Your task to perform on an android device: turn off smart reply in the gmail app Image 0: 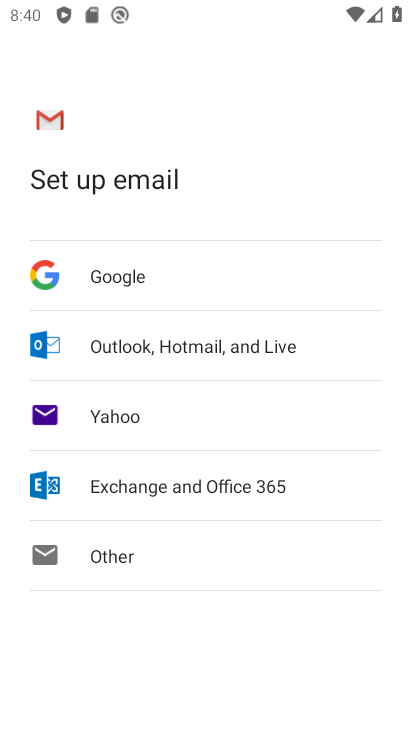
Step 0: press home button
Your task to perform on an android device: turn off smart reply in the gmail app Image 1: 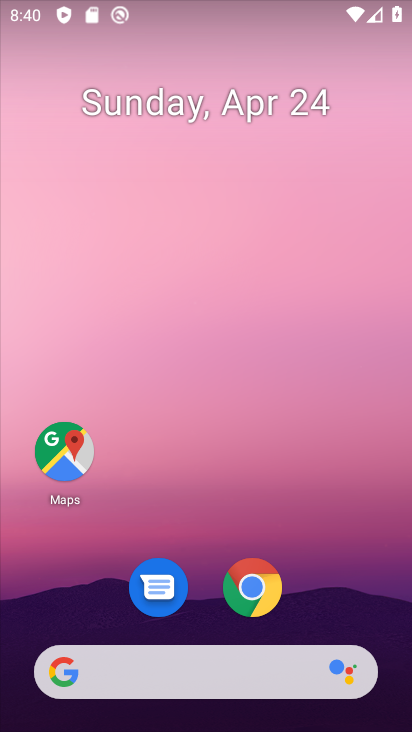
Step 1: drag from (350, 527) to (286, 17)
Your task to perform on an android device: turn off smart reply in the gmail app Image 2: 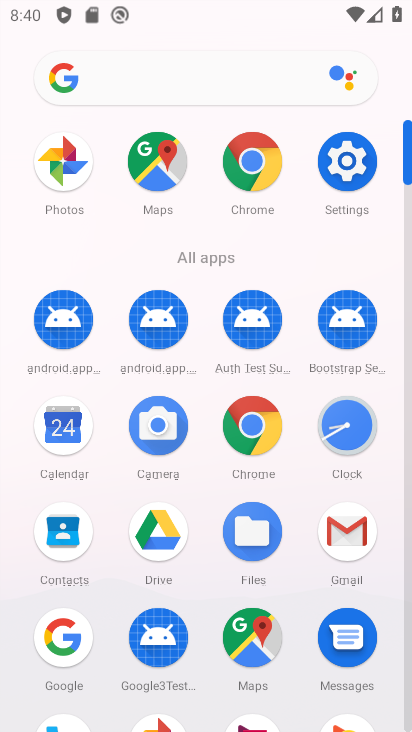
Step 2: click (330, 541)
Your task to perform on an android device: turn off smart reply in the gmail app Image 3: 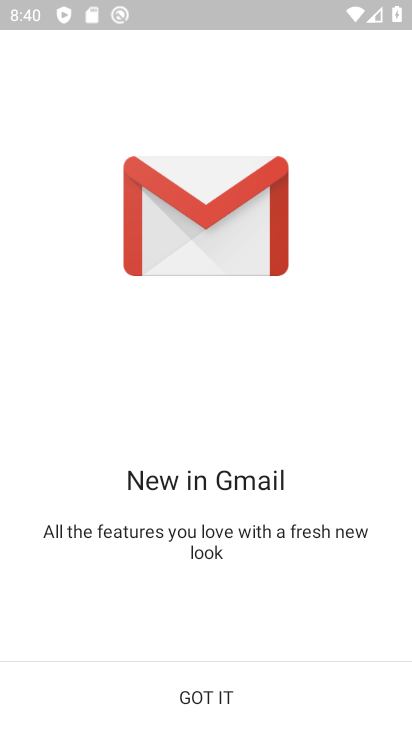
Step 3: click (217, 700)
Your task to perform on an android device: turn off smart reply in the gmail app Image 4: 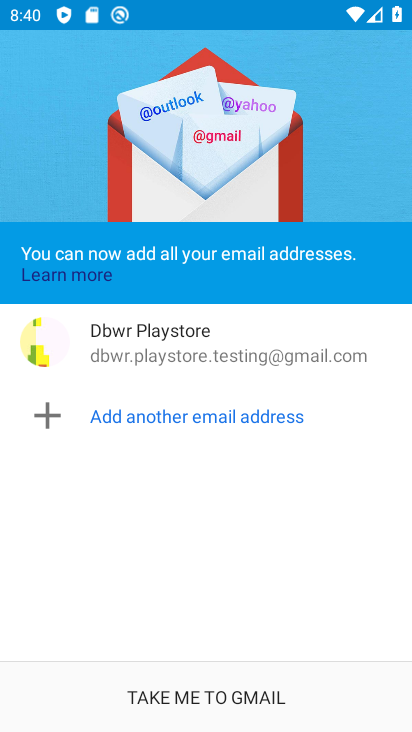
Step 4: click (217, 700)
Your task to perform on an android device: turn off smart reply in the gmail app Image 5: 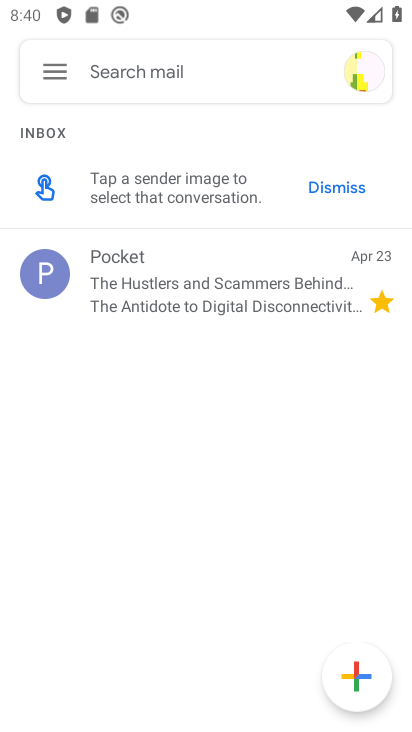
Step 5: click (43, 73)
Your task to perform on an android device: turn off smart reply in the gmail app Image 6: 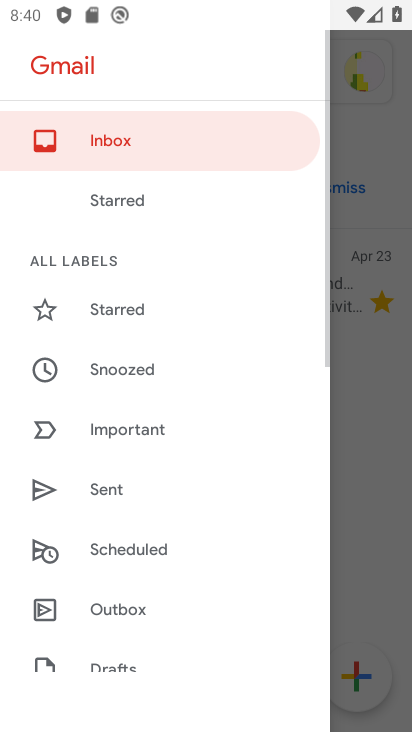
Step 6: drag from (88, 697) to (124, 209)
Your task to perform on an android device: turn off smart reply in the gmail app Image 7: 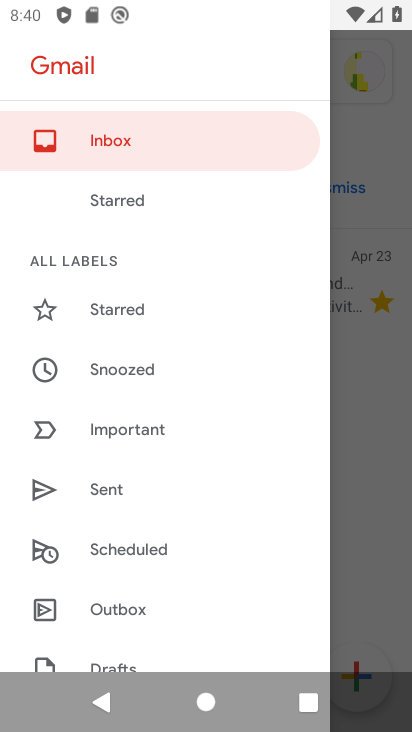
Step 7: drag from (160, 405) to (138, 164)
Your task to perform on an android device: turn off smart reply in the gmail app Image 8: 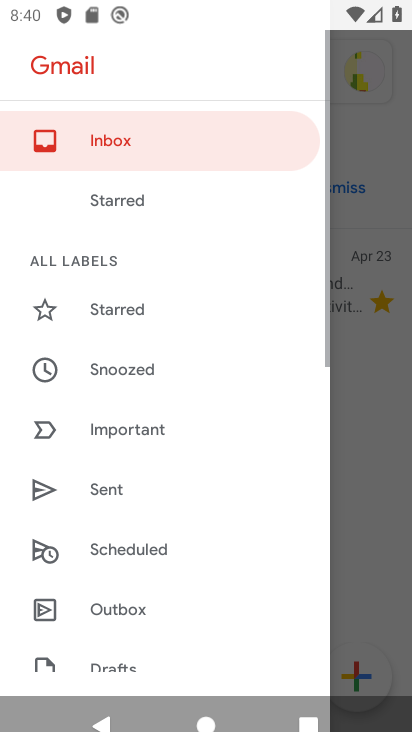
Step 8: drag from (183, 114) to (246, 0)
Your task to perform on an android device: turn off smart reply in the gmail app Image 9: 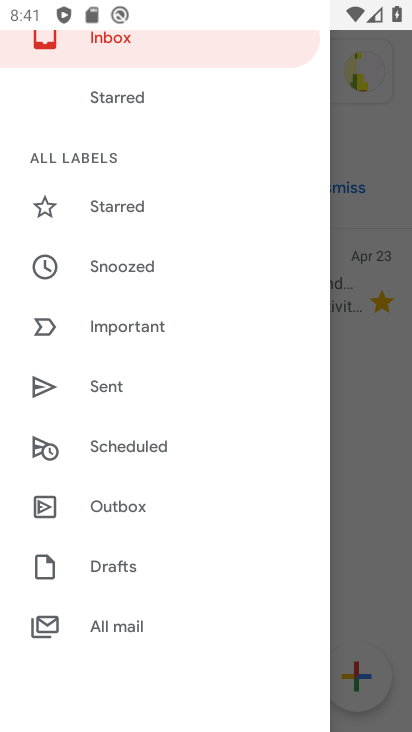
Step 9: drag from (163, 581) to (193, 207)
Your task to perform on an android device: turn off smart reply in the gmail app Image 10: 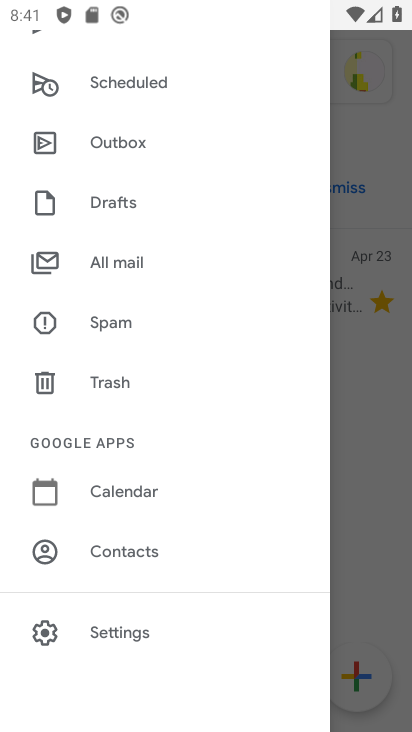
Step 10: drag from (92, 728) to (149, 638)
Your task to perform on an android device: turn off smart reply in the gmail app Image 11: 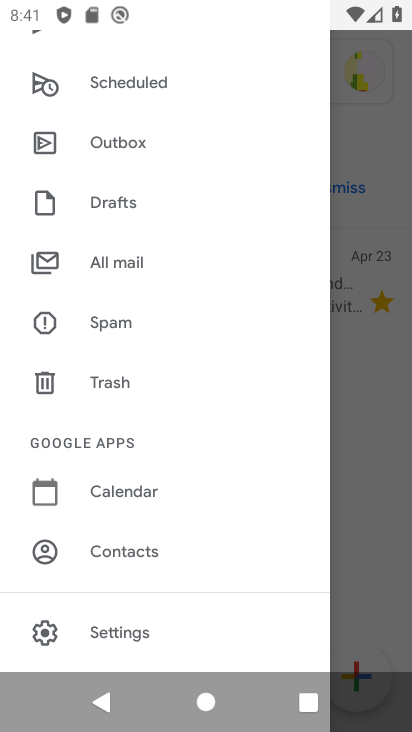
Step 11: drag from (206, 566) to (232, 267)
Your task to perform on an android device: turn off smart reply in the gmail app Image 12: 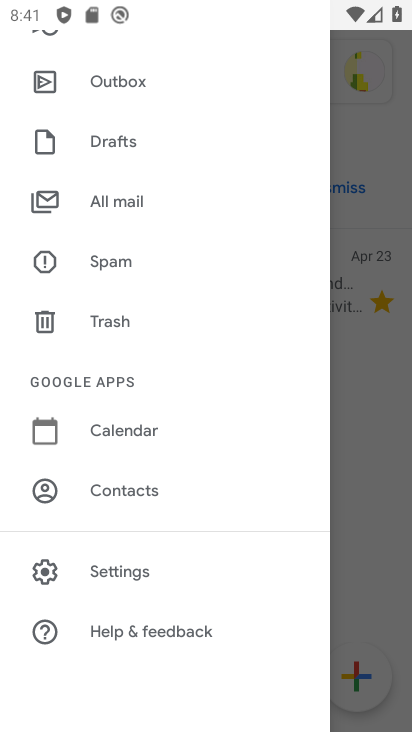
Step 12: click (138, 569)
Your task to perform on an android device: turn off smart reply in the gmail app Image 13: 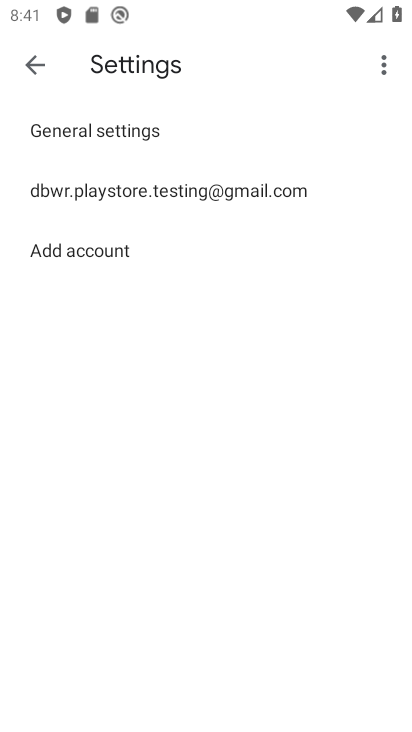
Step 13: click (188, 197)
Your task to perform on an android device: turn off smart reply in the gmail app Image 14: 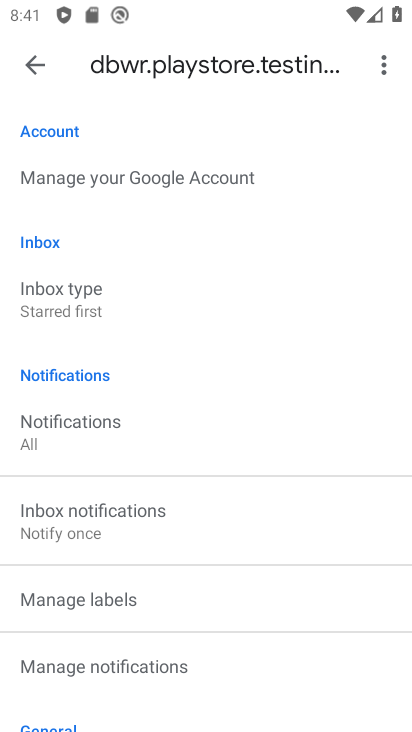
Step 14: drag from (256, 562) to (239, 297)
Your task to perform on an android device: turn off smart reply in the gmail app Image 15: 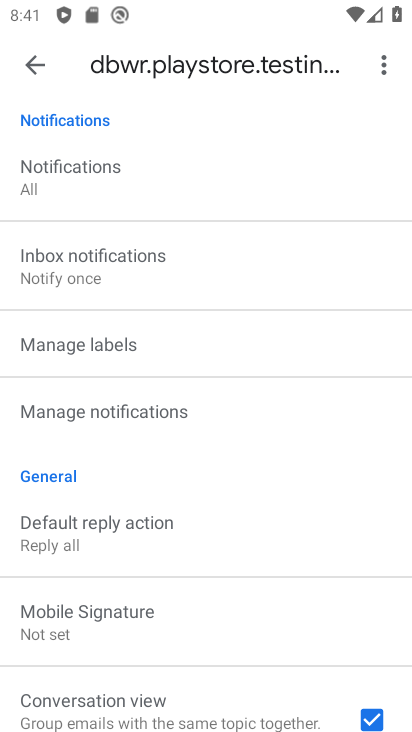
Step 15: drag from (233, 558) to (233, 409)
Your task to perform on an android device: turn off smart reply in the gmail app Image 16: 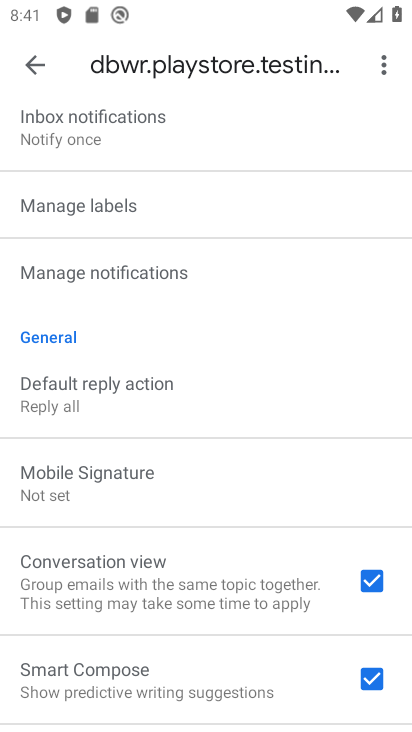
Step 16: drag from (225, 319) to (223, 523)
Your task to perform on an android device: turn off smart reply in the gmail app Image 17: 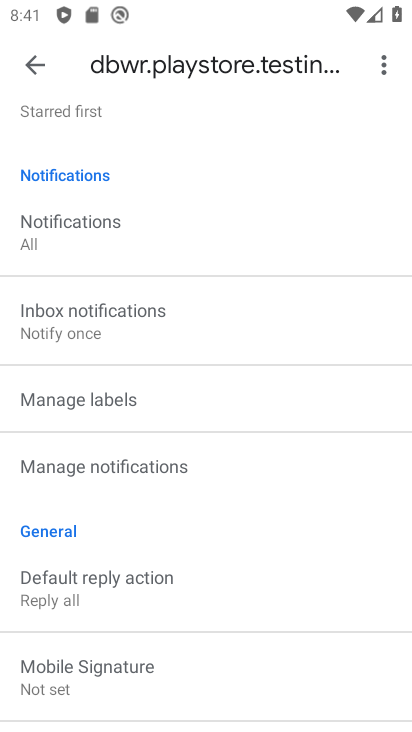
Step 17: drag from (349, 648) to (246, 14)
Your task to perform on an android device: turn off smart reply in the gmail app Image 18: 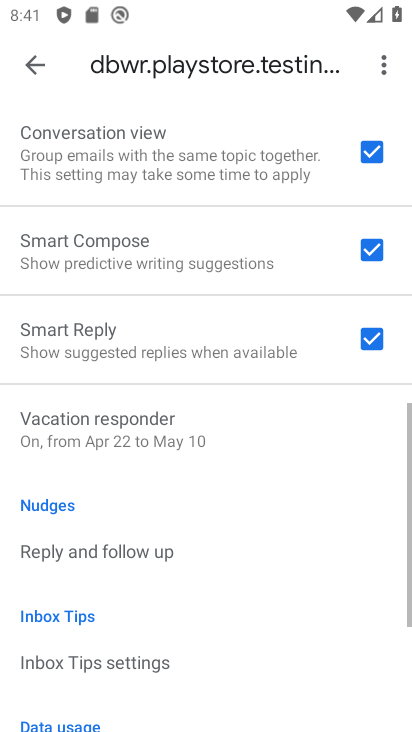
Step 18: drag from (228, 516) to (191, 598)
Your task to perform on an android device: turn off smart reply in the gmail app Image 19: 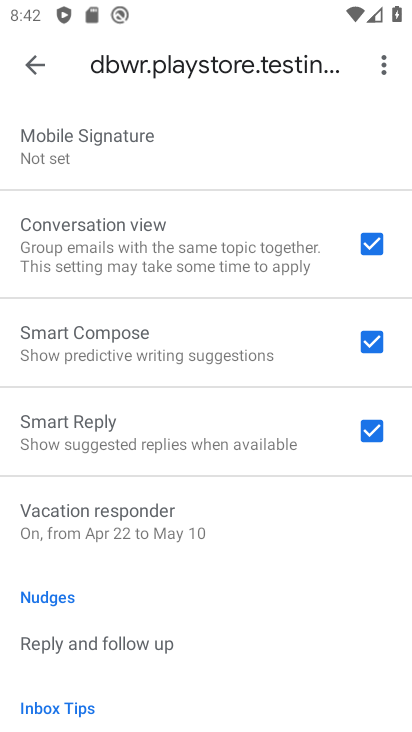
Step 19: click (179, 441)
Your task to perform on an android device: turn off smart reply in the gmail app Image 20: 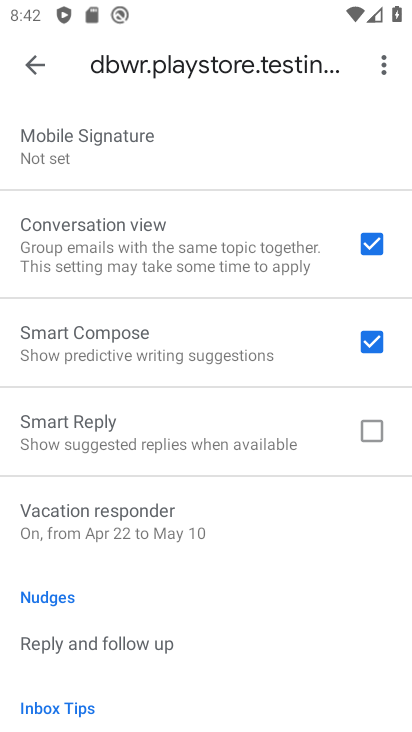
Step 20: task complete